Your task to perform on an android device: What is the news today? Image 0: 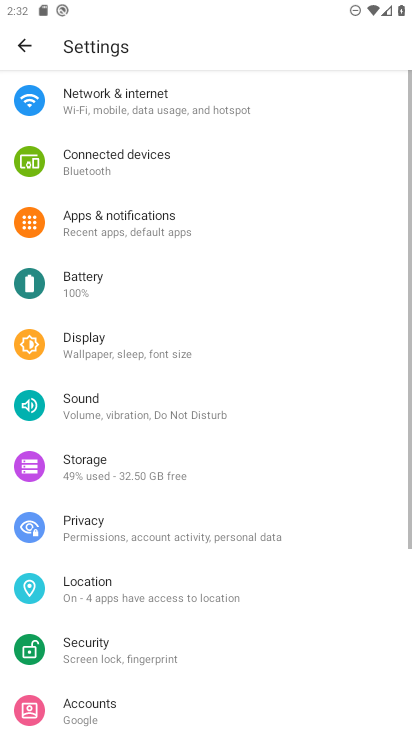
Step 0: press home button
Your task to perform on an android device: What is the news today? Image 1: 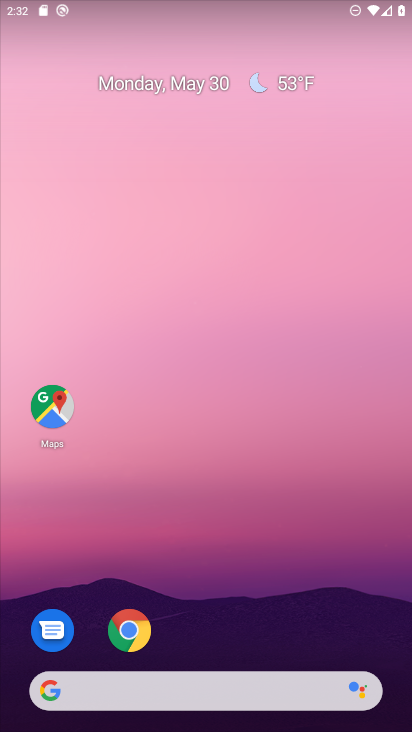
Step 1: task complete